Your task to perform on an android device: find snoozed emails in the gmail app Image 0: 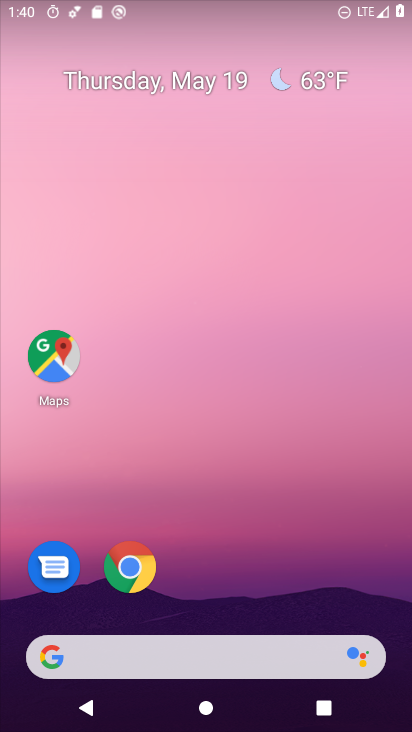
Step 0: press home button
Your task to perform on an android device: find snoozed emails in the gmail app Image 1: 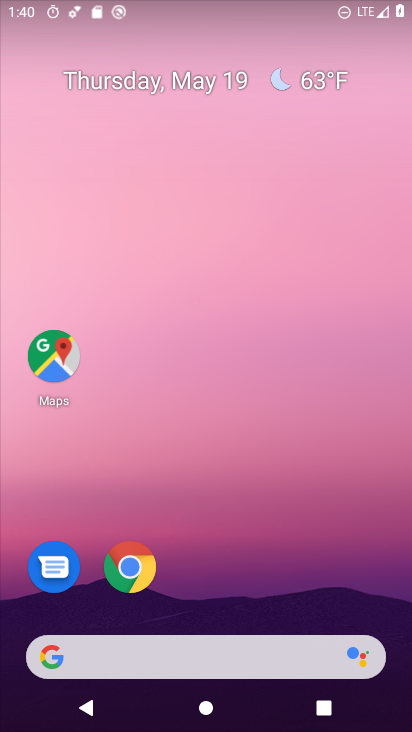
Step 1: drag from (149, 661) to (309, 206)
Your task to perform on an android device: find snoozed emails in the gmail app Image 2: 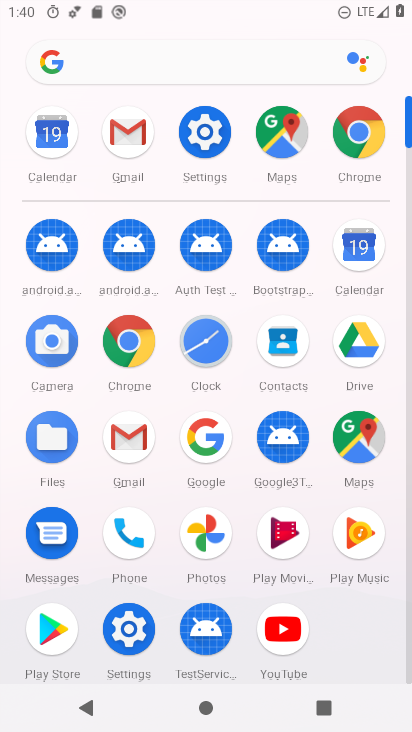
Step 2: click (130, 144)
Your task to perform on an android device: find snoozed emails in the gmail app Image 3: 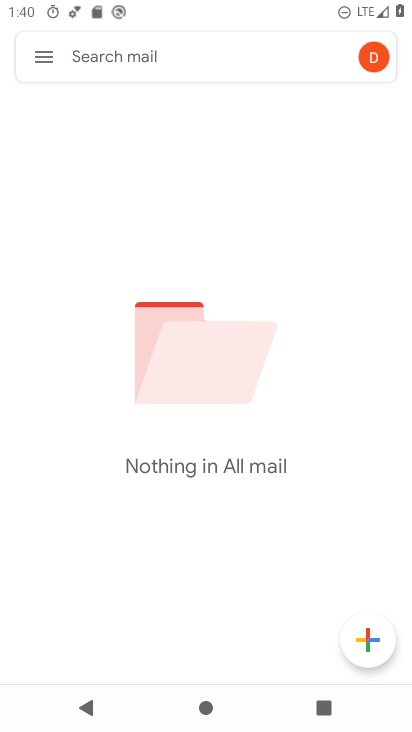
Step 3: click (46, 59)
Your task to perform on an android device: find snoozed emails in the gmail app Image 4: 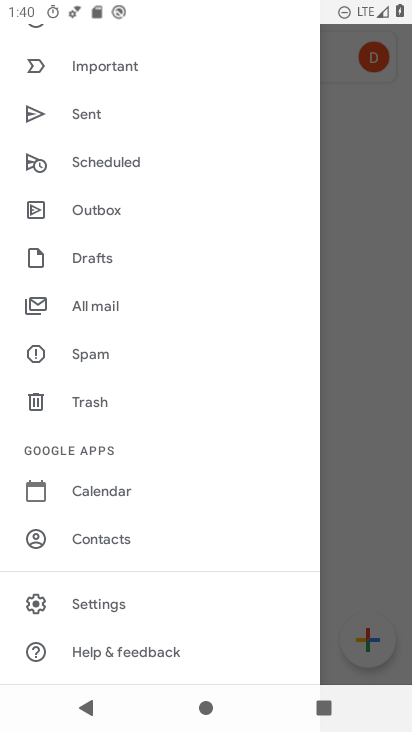
Step 4: drag from (127, 137) to (12, 570)
Your task to perform on an android device: find snoozed emails in the gmail app Image 5: 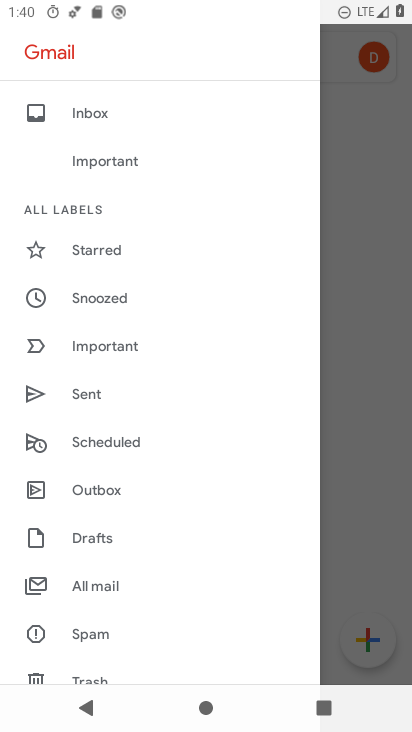
Step 5: click (93, 301)
Your task to perform on an android device: find snoozed emails in the gmail app Image 6: 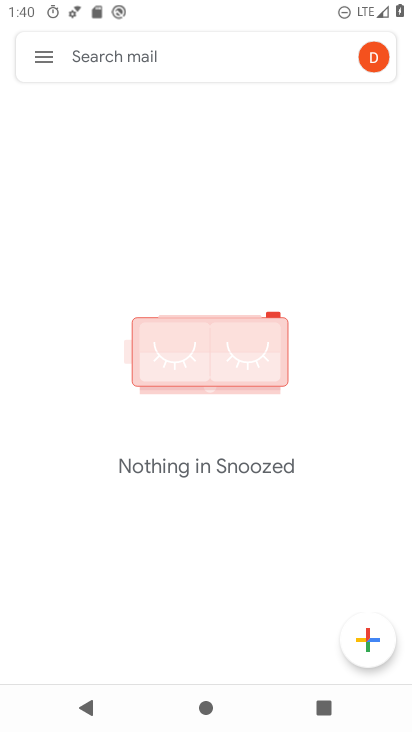
Step 6: task complete